Your task to perform on an android device: Go to Wikipedia Image 0: 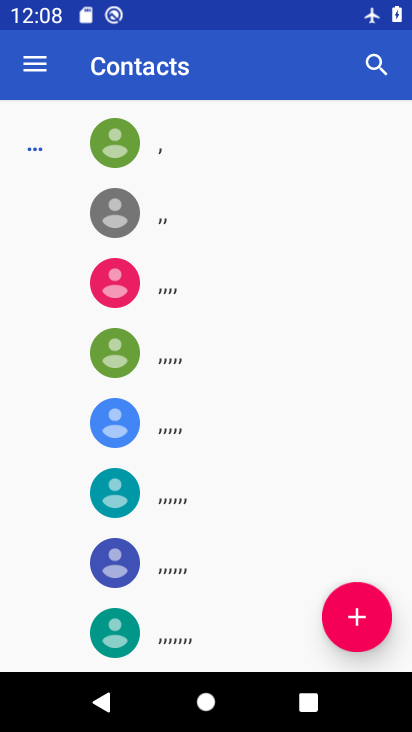
Step 0: press back button
Your task to perform on an android device: Go to Wikipedia Image 1: 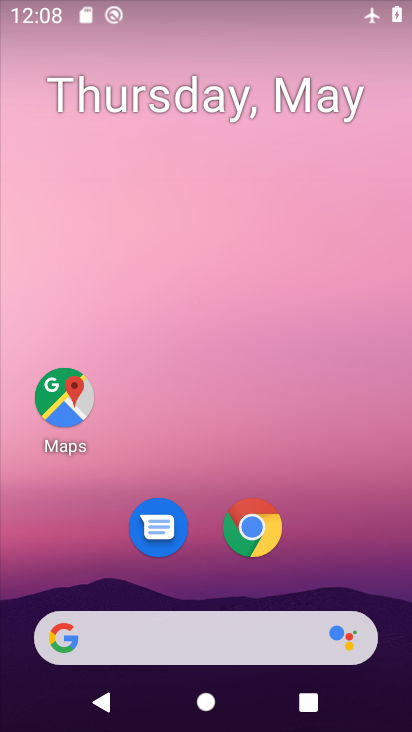
Step 1: click (251, 533)
Your task to perform on an android device: Go to Wikipedia Image 2: 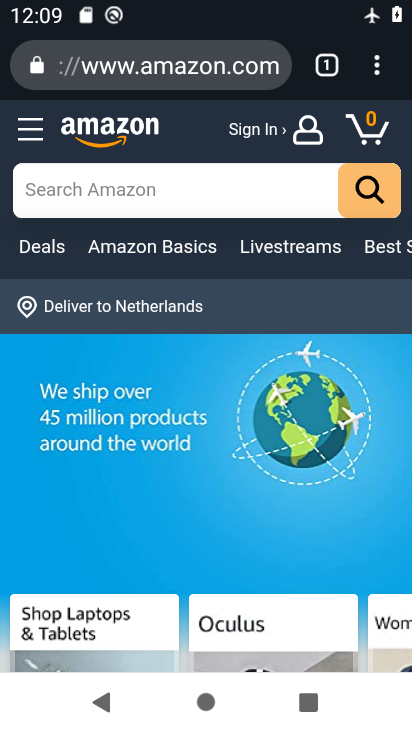
Step 2: click (319, 72)
Your task to perform on an android device: Go to Wikipedia Image 3: 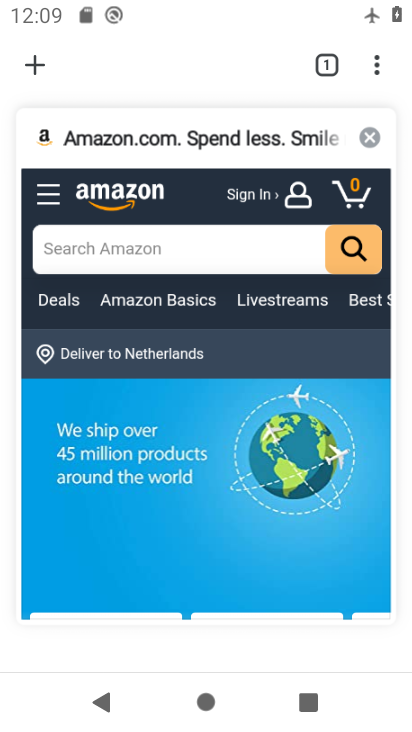
Step 3: click (38, 67)
Your task to perform on an android device: Go to Wikipedia Image 4: 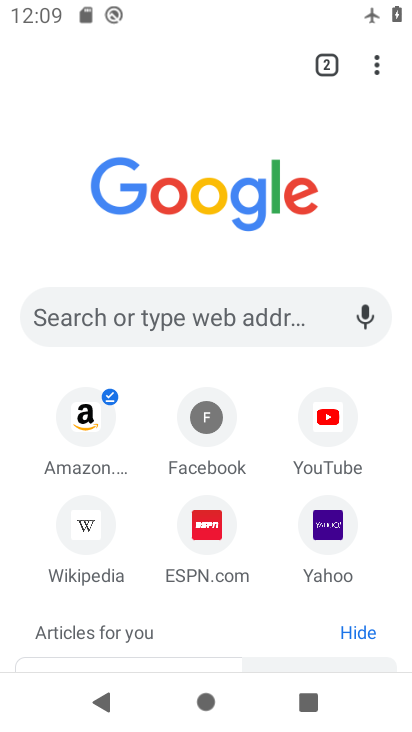
Step 4: click (86, 531)
Your task to perform on an android device: Go to Wikipedia Image 5: 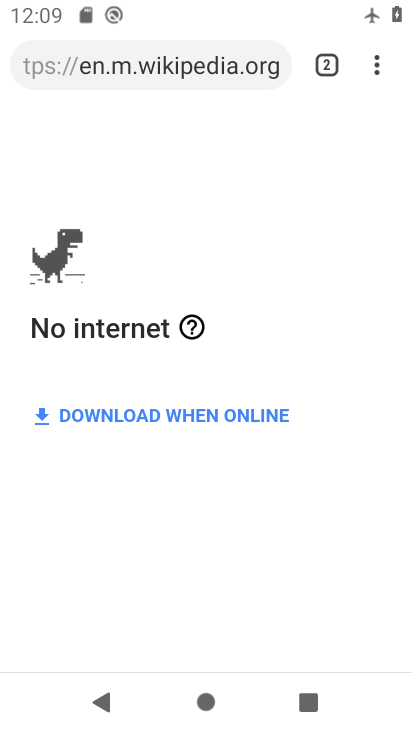
Step 5: drag from (309, 4) to (250, 542)
Your task to perform on an android device: Go to Wikipedia Image 6: 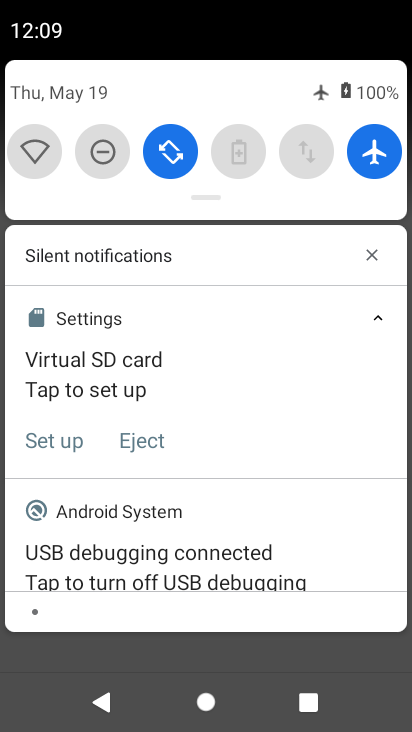
Step 6: click (367, 142)
Your task to perform on an android device: Go to Wikipedia Image 7: 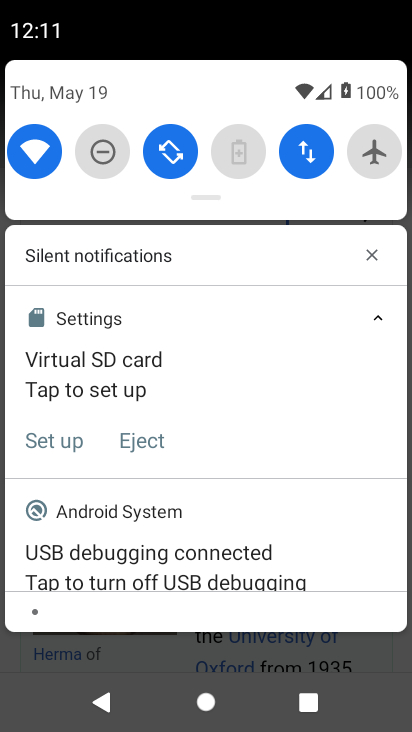
Step 7: click (190, 661)
Your task to perform on an android device: Go to Wikipedia Image 8: 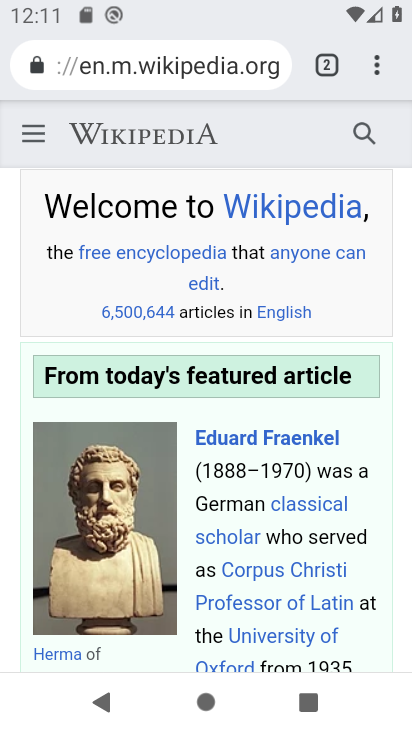
Step 8: task complete